Your task to perform on an android device: Open battery settings Image 0: 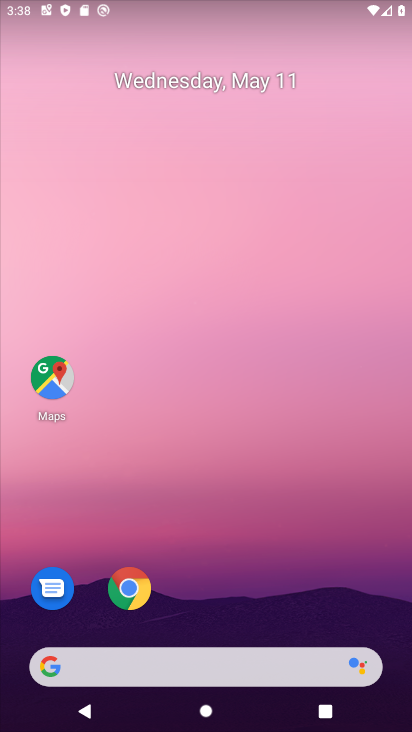
Step 0: drag from (181, 600) to (239, 55)
Your task to perform on an android device: Open battery settings Image 1: 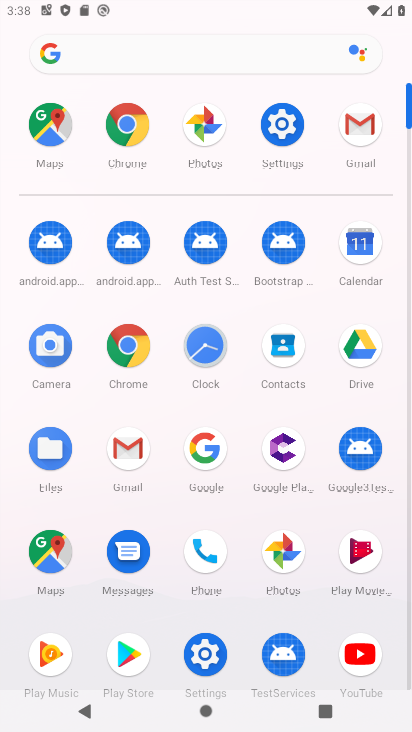
Step 1: click (289, 139)
Your task to perform on an android device: Open battery settings Image 2: 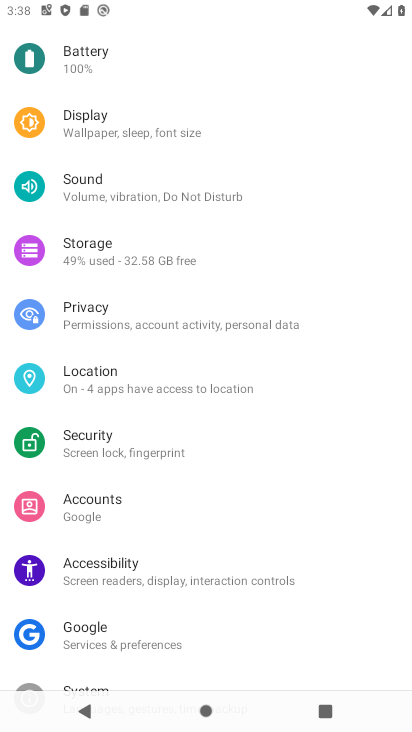
Step 2: drag from (239, 160) to (241, 476)
Your task to perform on an android device: Open battery settings Image 3: 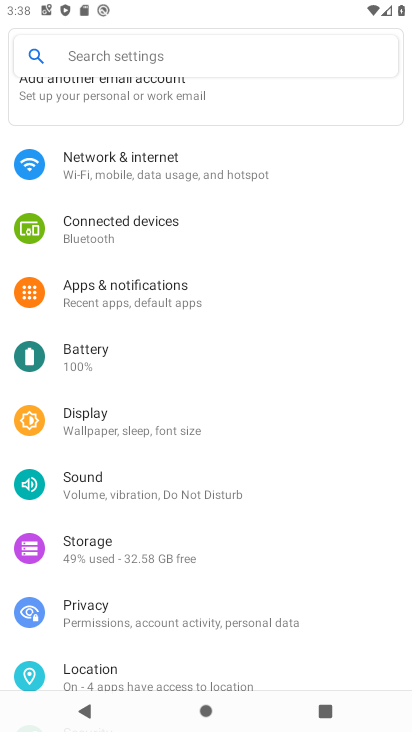
Step 3: click (135, 364)
Your task to perform on an android device: Open battery settings Image 4: 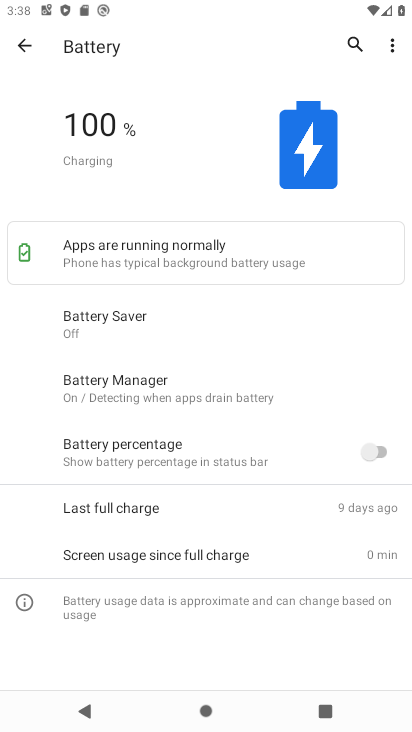
Step 4: task complete